Your task to perform on an android device: open app "Google Play Music" Image 0: 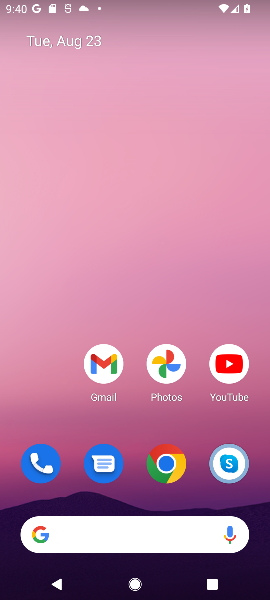
Step 0: drag from (131, 484) to (173, 105)
Your task to perform on an android device: open app "Google Play Music" Image 1: 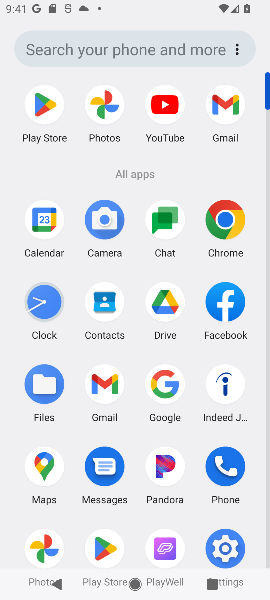
Step 1: click (42, 98)
Your task to perform on an android device: open app "Google Play Music" Image 2: 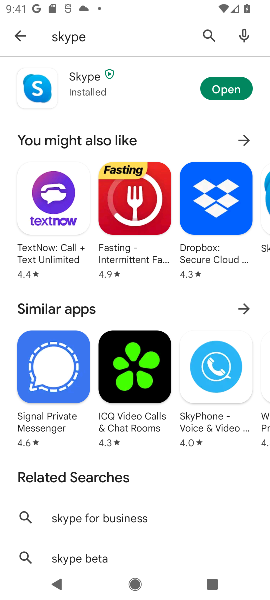
Step 2: click (212, 31)
Your task to perform on an android device: open app "Google Play Music" Image 3: 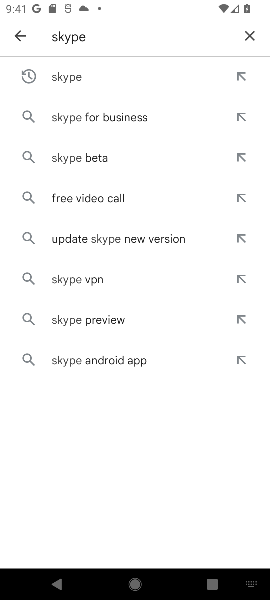
Step 3: click (247, 36)
Your task to perform on an android device: open app "Google Play Music" Image 4: 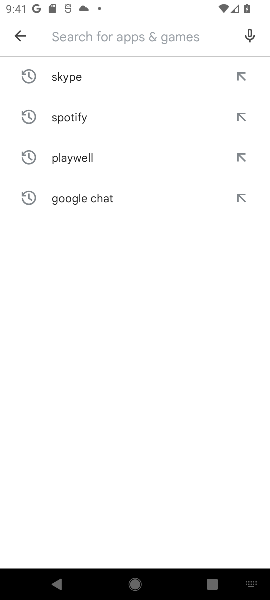
Step 4: type "Google Play Music"
Your task to perform on an android device: open app "Google Play Music" Image 5: 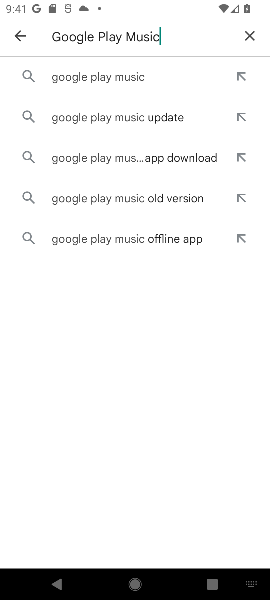
Step 5: click (109, 73)
Your task to perform on an android device: open app "Google Play Music" Image 6: 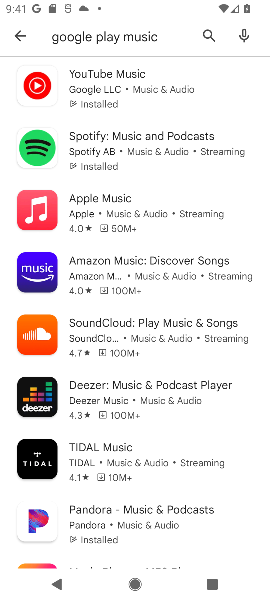
Step 6: task complete